Your task to perform on an android device: What is the news today? Image 0: 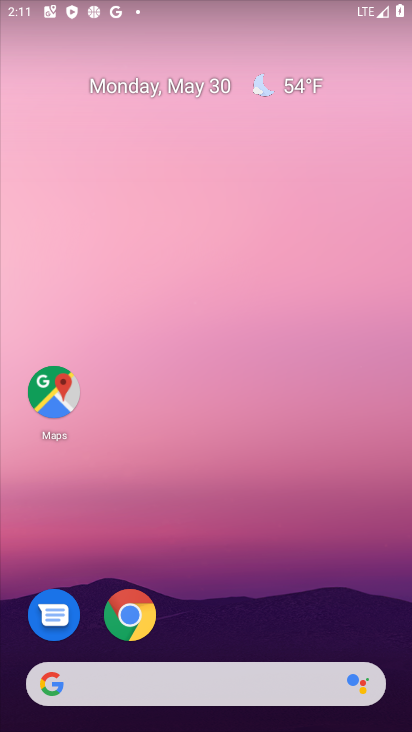
Step 0: drag from (14, 180) to (409, 411)
Your task to perform on an android device: What is the news today? Image 1: 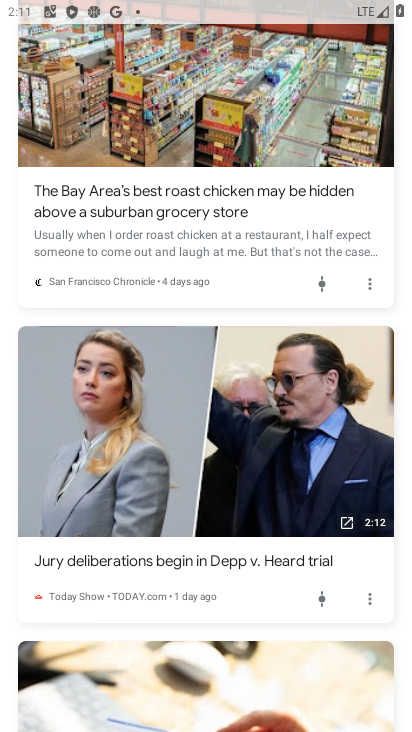
Step 1: task complete